Your task to perform on an android device: Go to location settings Image 0: 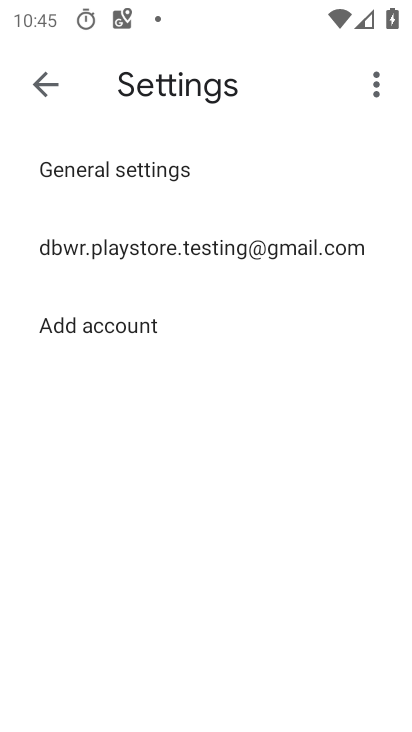
Step 0: press home button
Your task to perform on an android device: Go to location settings Image 1: 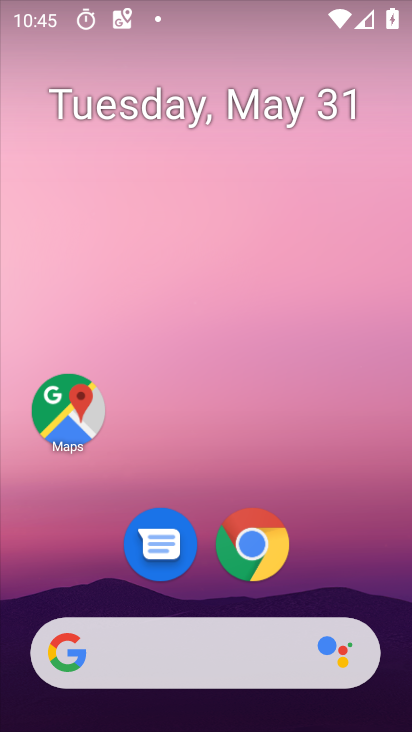
Step 1: drag from (218, 592) to (221, 193)
Your task to perform on an android device: Go to location settings Image 2: 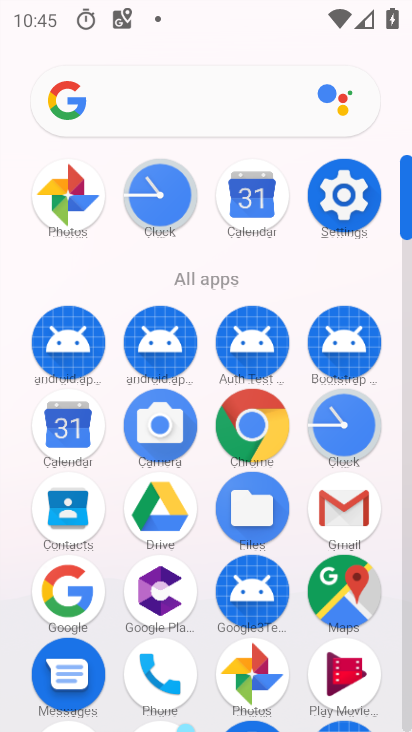
Step 2: click (362, 223)
Your task to perform on an android device: Go to location settings Image 3: 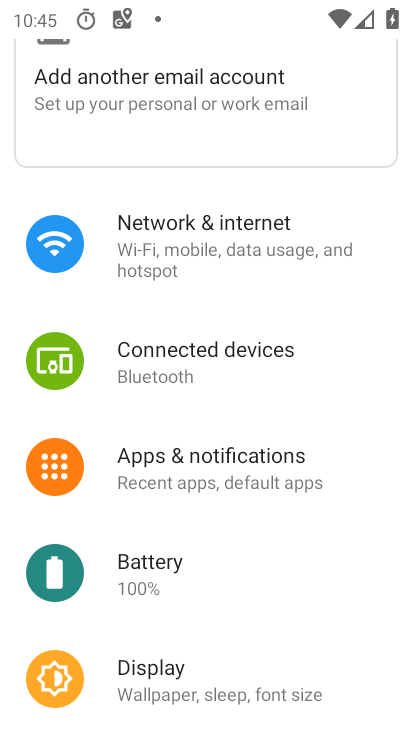
Step 3: drag from (225, 674) to (198, 425)
Your task to perform on an android device: Go to location settings Image 4: 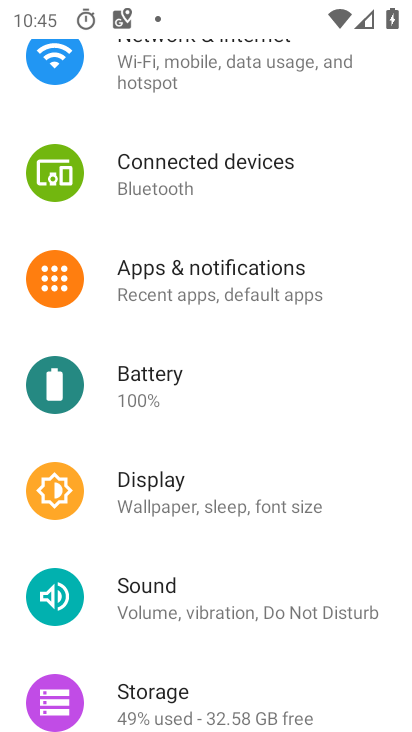
Step 4: drag from (228, 650) to (232, 348)
Your task to perform on an android device: Go to location settings Image 5: 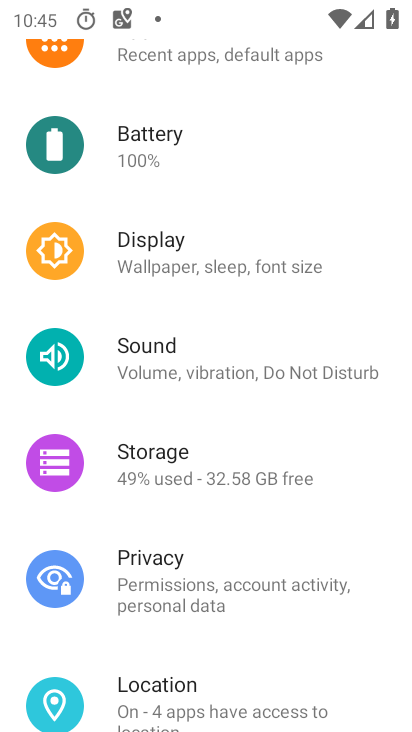
Step 5: click (244, 680)
Your task to perform on an android device: Go to location settings Image 6: 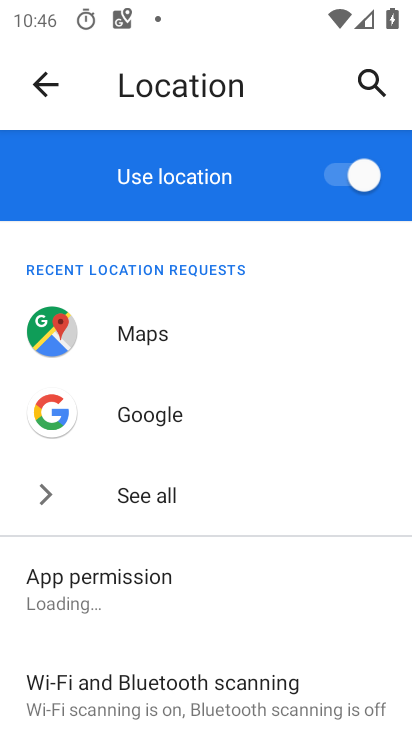
Step 6: task complete